Your task to perform on an android device: Open location settings Image 0: 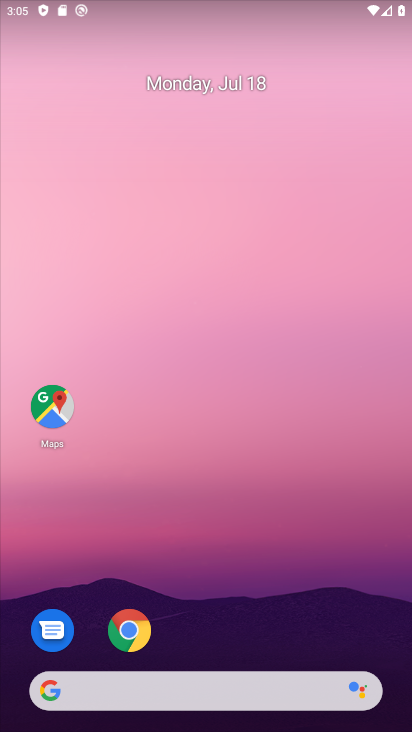
Step 0: drag from (254, 633) to (295, 143)
Your task to perform on an android device: Open location settings Image 1: 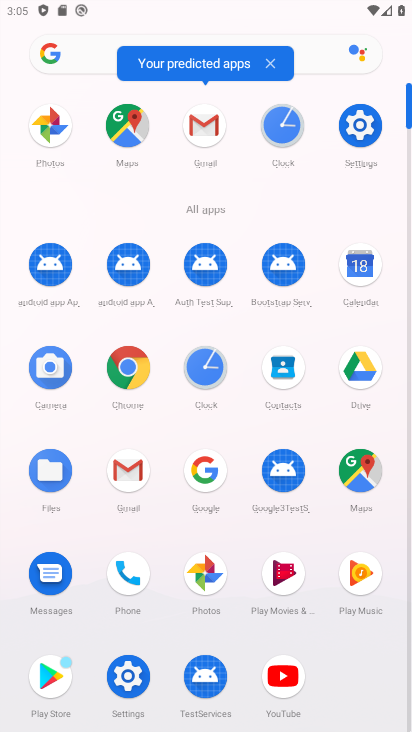
Step 1: click (124, 681)
Your task to perform on an android device: Open location settings Image 2: 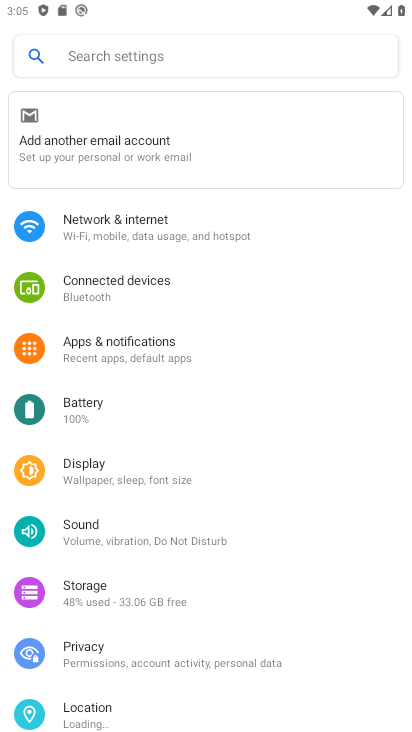
Step 2: click (86, 709)
Your task to perform on an android device: Open location settings Image 3: 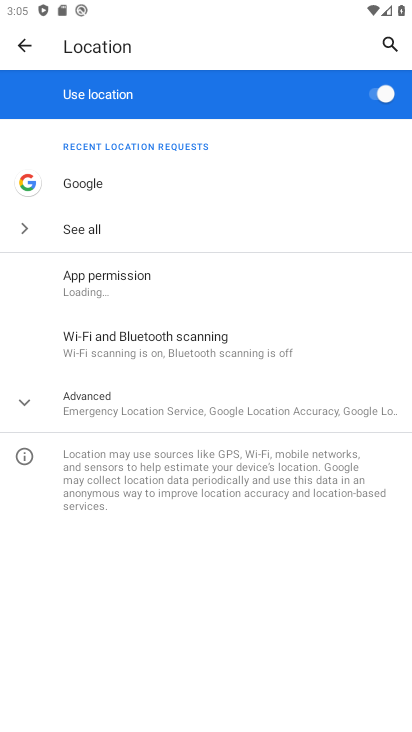
Step 3: click (156, 403)
Your task to perform on an android device: Open location settings Image 4: 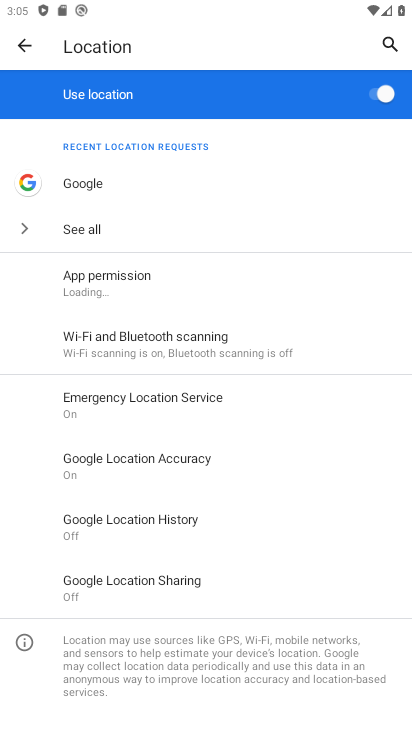
Step 4: task complete